Your task to perform on an android device: Open Android settings Image 0: 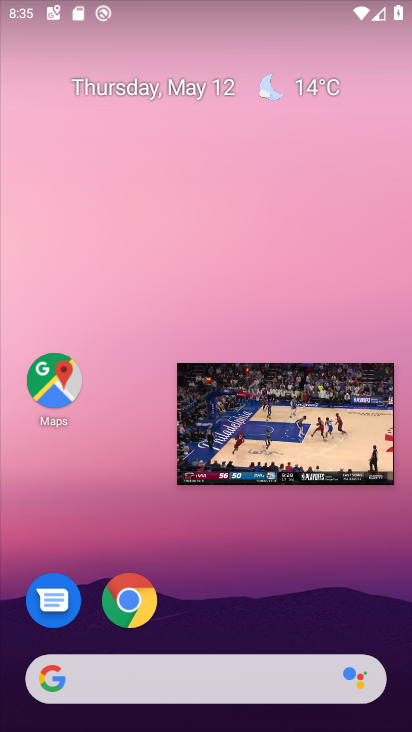
Step 0: click (370, 383)
Your task to perform on an android device: Open Android settings Image 1: 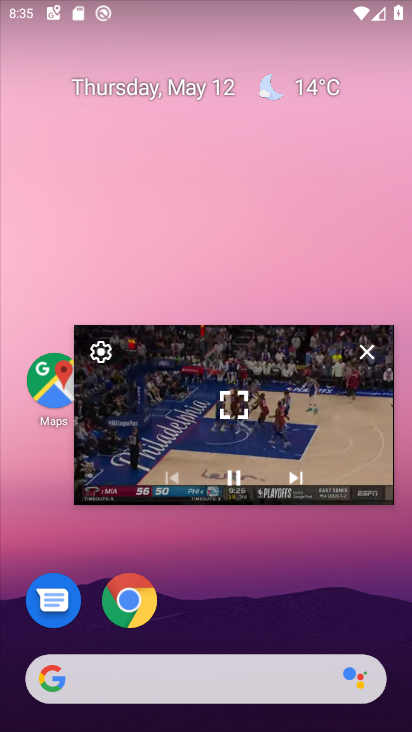
Step 1: click (349, 415)
Your task to perform on an android device: Open Android settings Image 2: 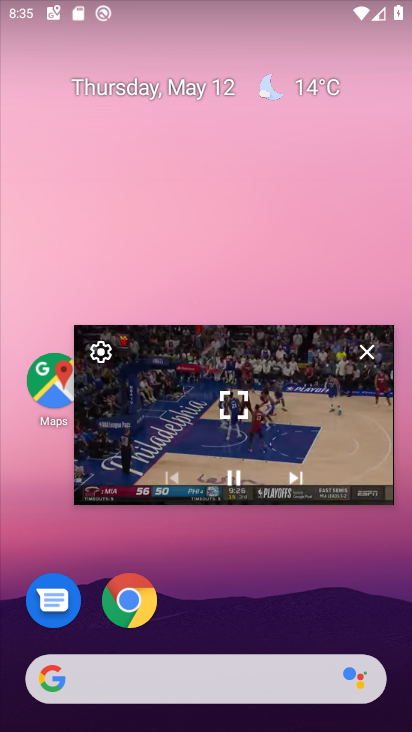
Step 2: click (329, 423)
Your task to perform on an android device: Open Android settings Image 3: 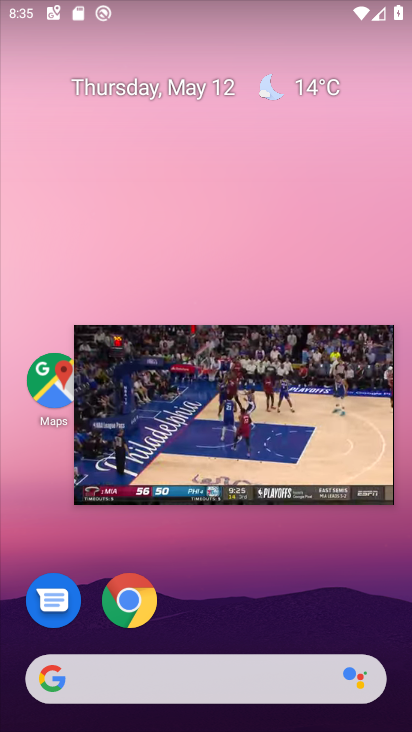
Step 3: click (324, 424)
Your task to perform on an android device: Open Android settings Image 4: 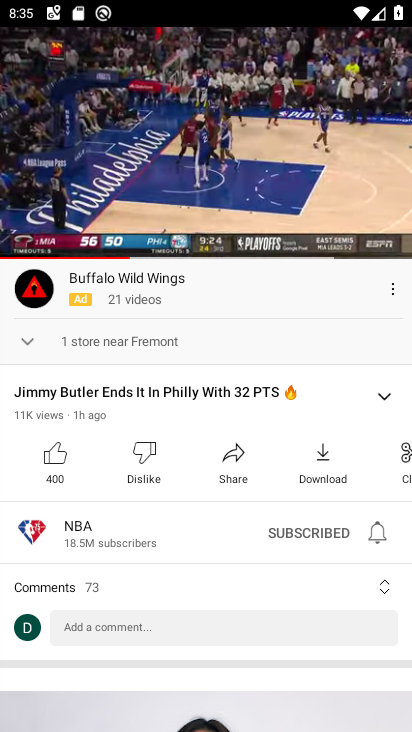
Step 4: click (308, 418)
Your task to perform on an android device: Open Android settings Image 5: 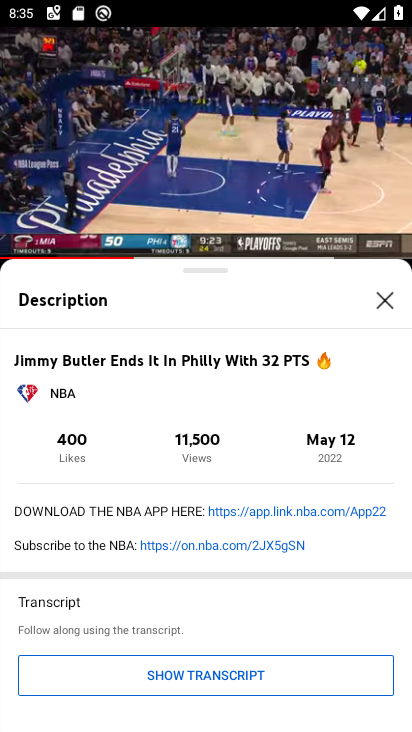
Step 5: click (372, 355)
Your task to perform on an android device: Open Android settings Image 6: 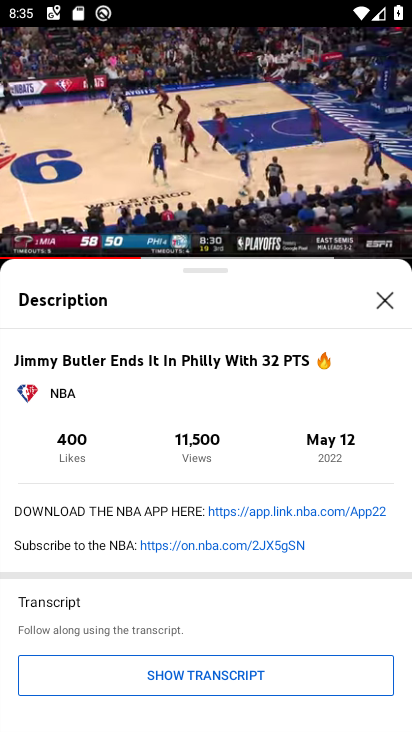
Step 6: press back button
Your task to perform on an android device: Open Android settings Image 7: 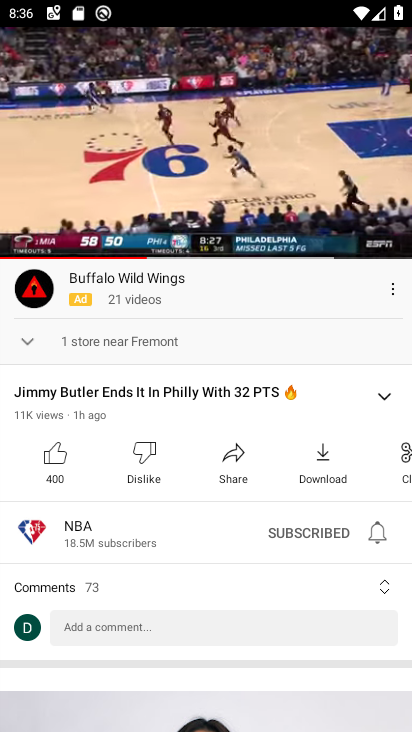
Step 7: press back button
Your task to perform on an android device: Open Android settings Image 8: 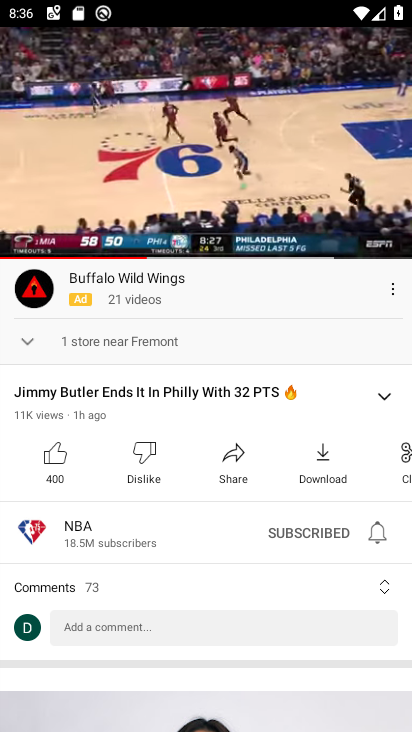
Step 8: press home button
Your task to perform on an android device: Open Android settings Image 9: 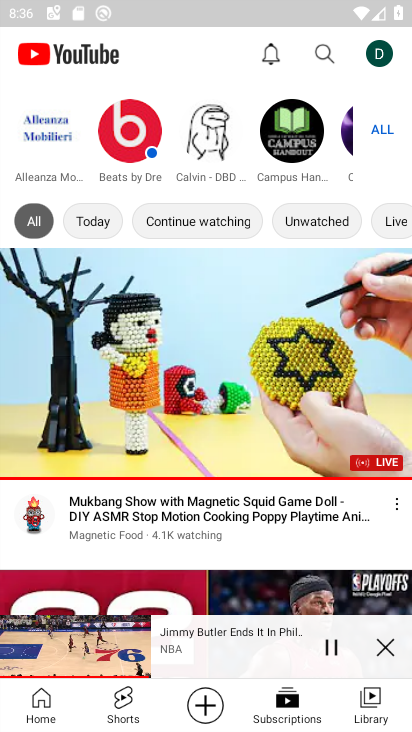
Step 9: press home button
Your task to perform on an android device: Open Android settings Image 10: 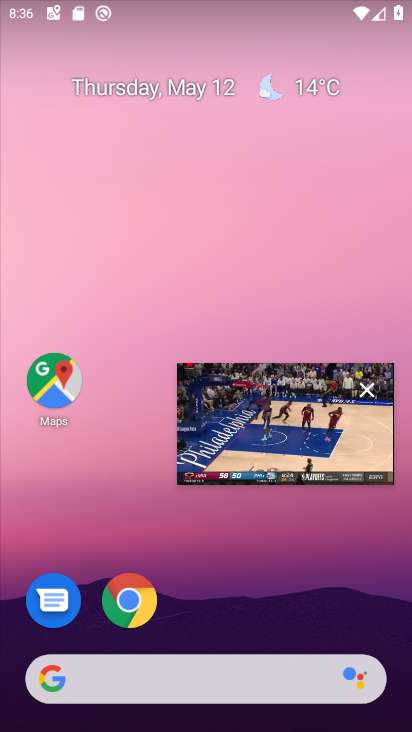
Step 10: press home button
Your task to perform on an android device: Open Android settings Image 11: 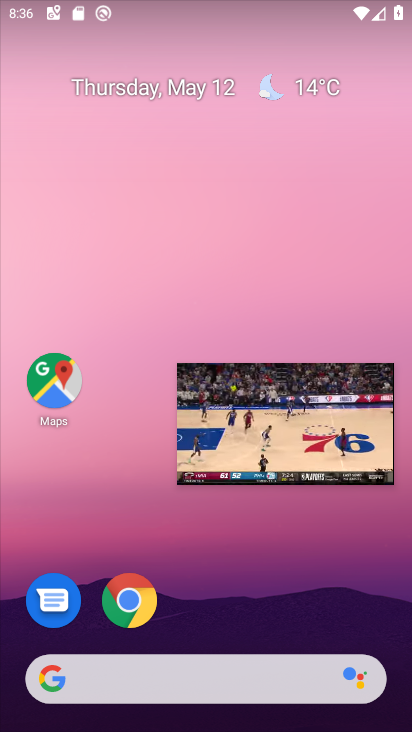
Step 11: press home button
Your task to perform on an android device: Open Android settings Image 12: 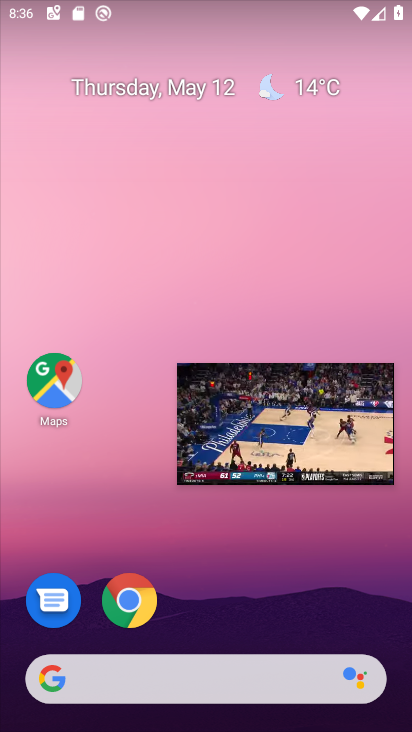
Step 12: click (370, 381)
Your task to perform on an android device: Open Android settings Image 13: 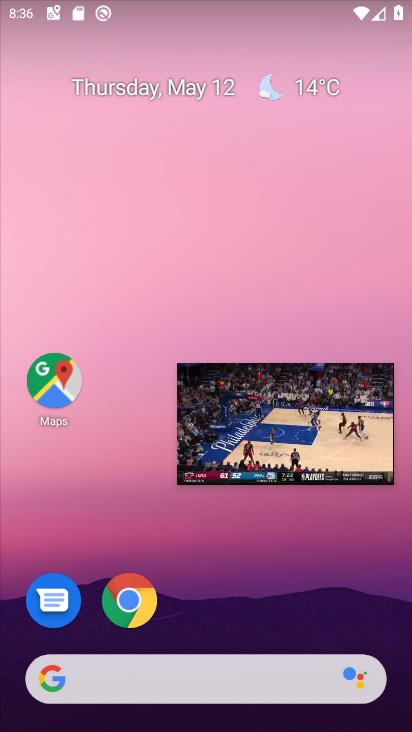
Step 13: click (365, 388)
Your task to perform on an android device: Open Android settings Image 14: 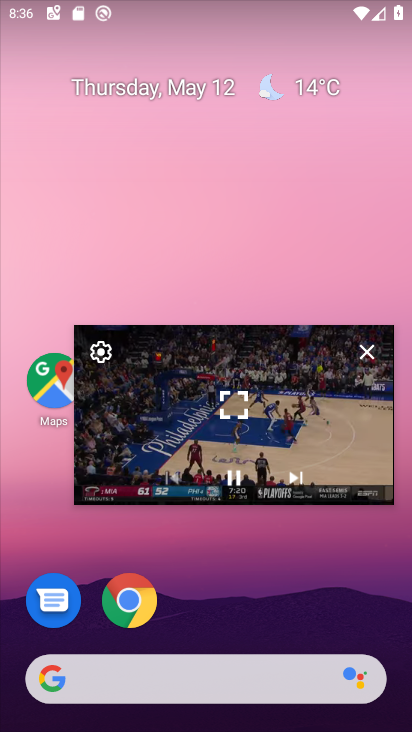
Step 14: click (353, 391)
Your task to perform on an android device: Open Android settings Image 15: 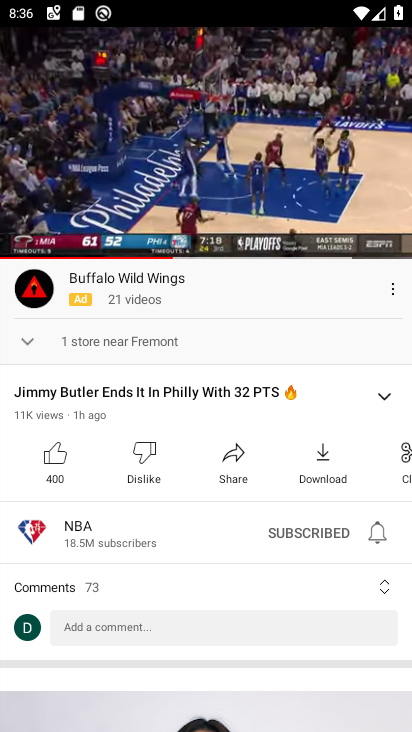
Step 15: click (363, 349)
Your task to perform on an android device: Open Android settings Image 16: 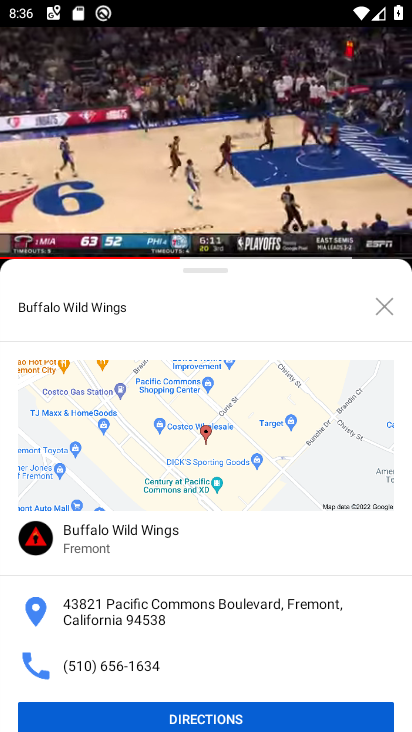
Step 16: click (381, 305)
Your task to perform on an android device: Open Android settings Image 17: 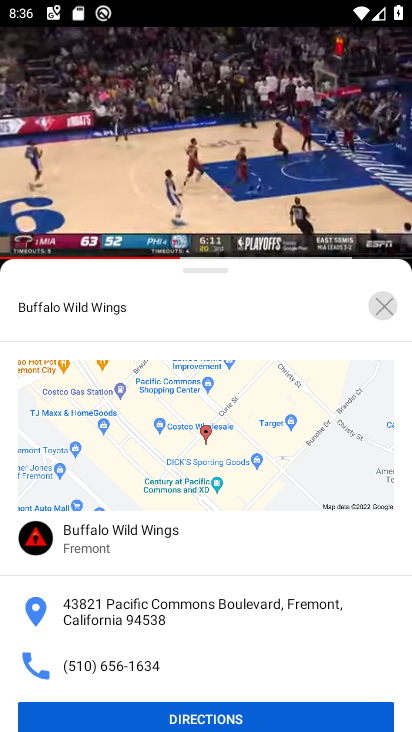
Step 17: click (383, 303)
Your task to perform on an android device: Open Android settings Image 18: 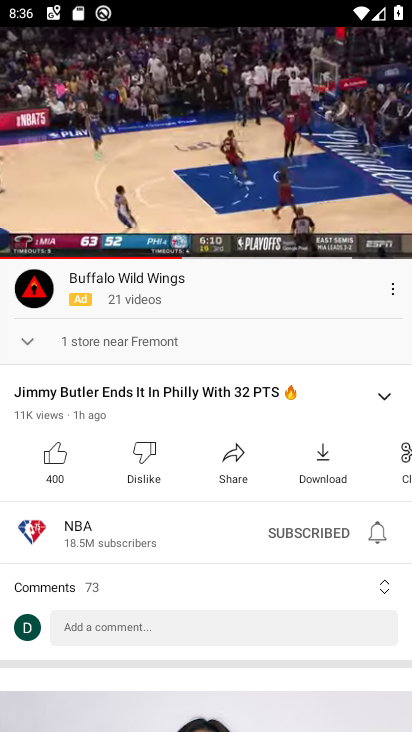
Step 18: click (383, 304)
Your task to perform on an android device: Open Android settings Image 19: 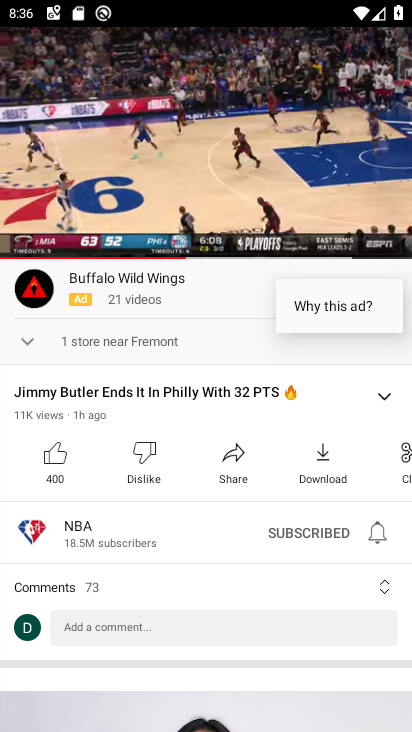
Step 19: click (331, 300)
Your task to perform on an android device: Open Android settings Image 20: 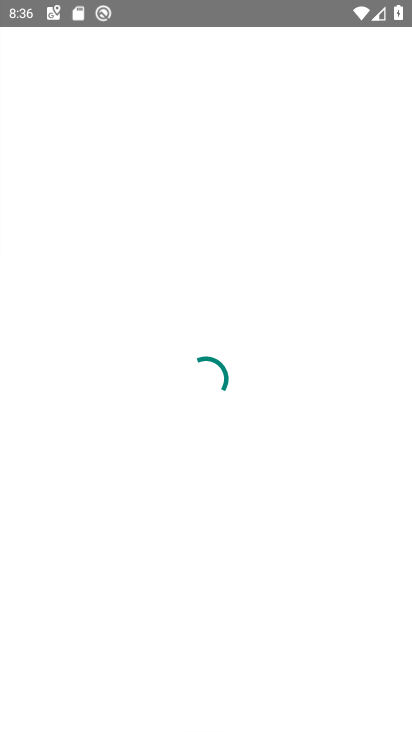
Step 20: press home button
Your task to perform on an android device: Open Android settings Image 21: 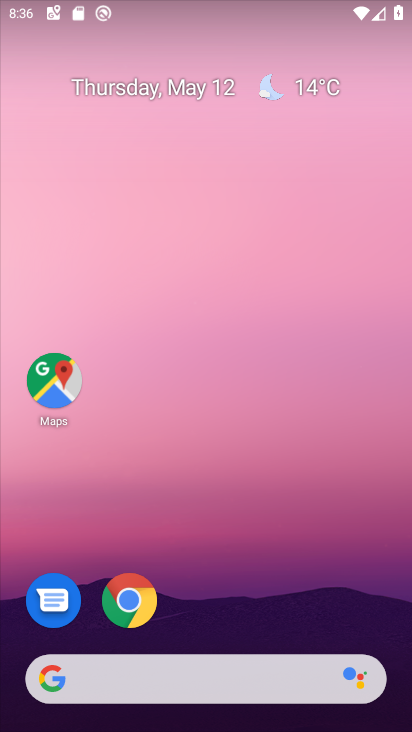
Step 21: drag from (270, 543) to (206, 90)
Your task to perform on an android device: Open Android settings Image 22: 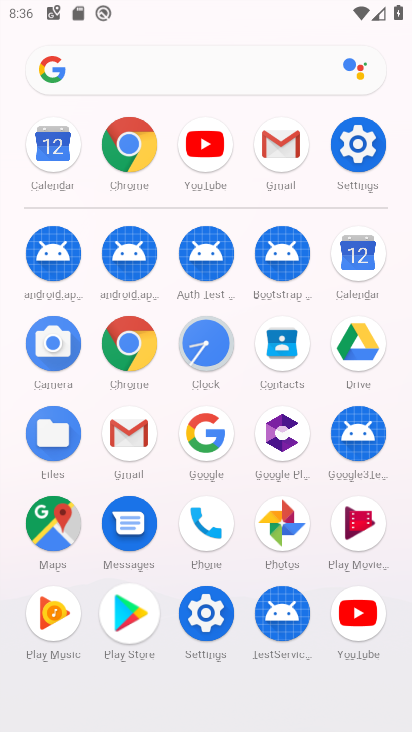
Step 22: click (354, 156)
Your task to perform on an android device: Open Android settings Image 23: 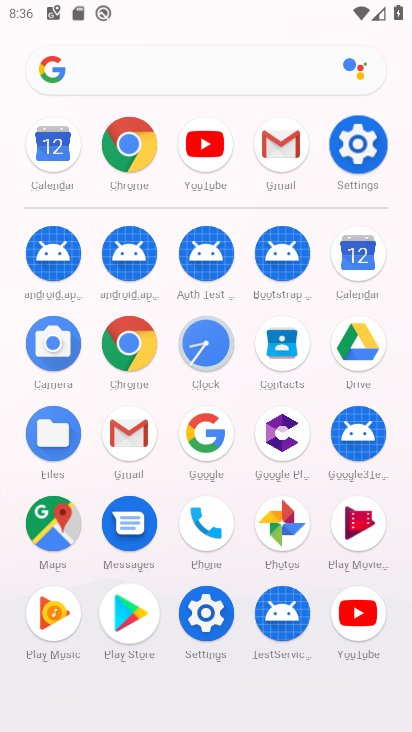
Step 23: click (354, 156)
Your task to perform on an android device: Open Android settings Image 24: 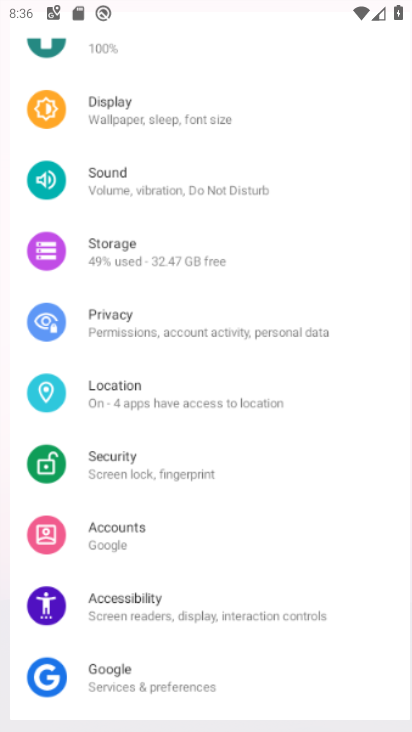
Step 24: click (354, 156)
Your task to perform on an android device: Open Android settings Image 25: 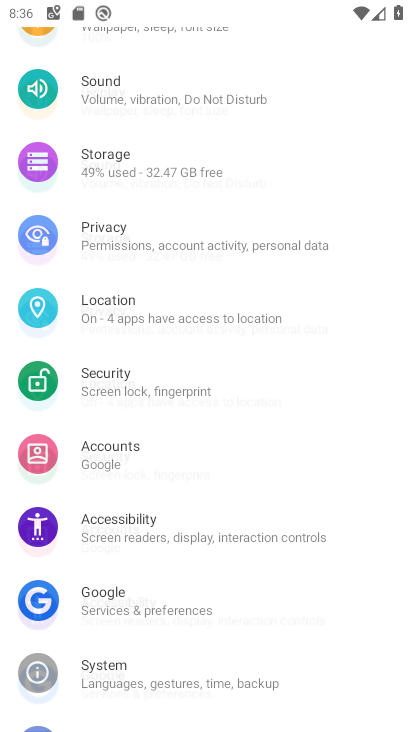
Step 25: click (354, 156)
Your task to perform on an android device: Open Android settings Image 26: 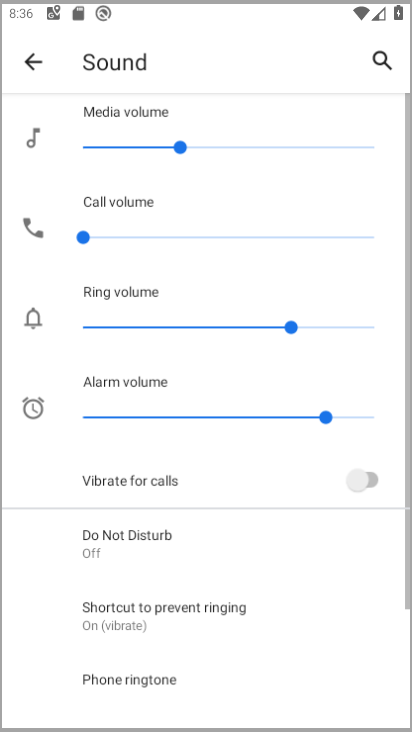
Step 26: drag from (203, 421) to (210, 217)
Your task to perform on an android device: Open Android settings Image 27: 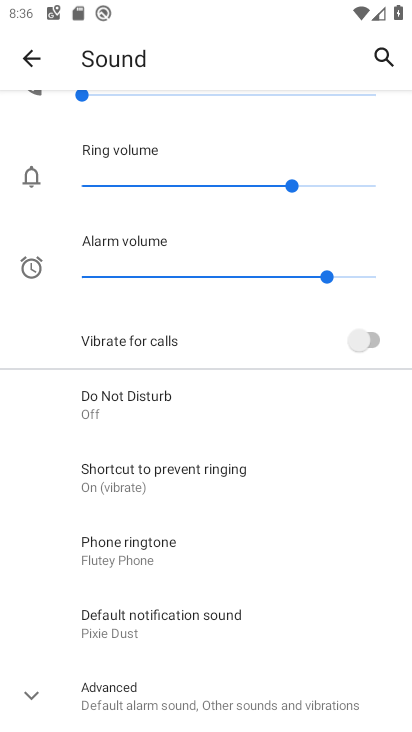
Step 27: click (31, 48)
Your task to perform on an android device: Open Android settings Image 28: 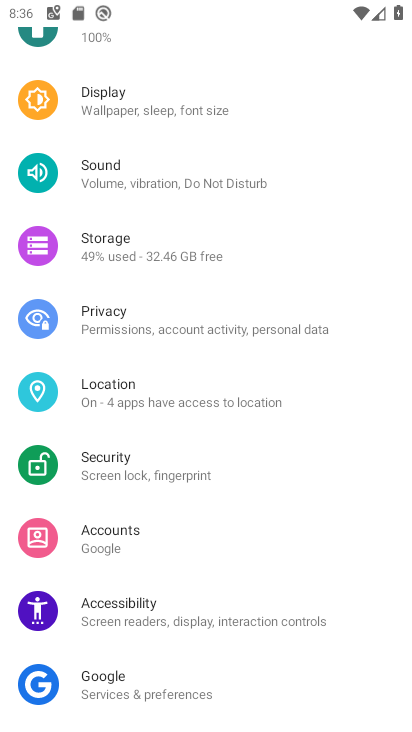
Step 28: drag from (206, 538) to (237, 175)
Your task to perform on an android device: Open Android settings Image 29: 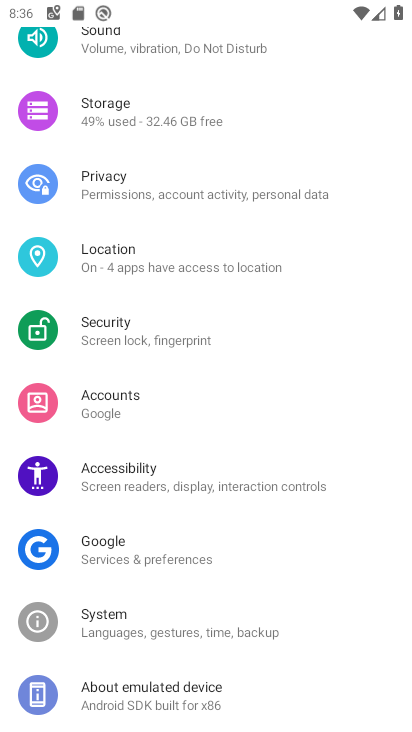
Step 29: click (148, 694)
Your task to perform on an android device: Open Android settings Image 30: 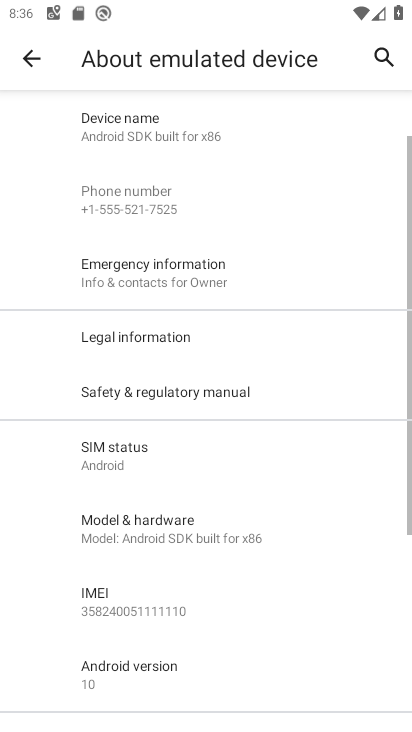
Step 30: click (162, 115)
Your task to perform on an android device: Open Android settings Image 31: 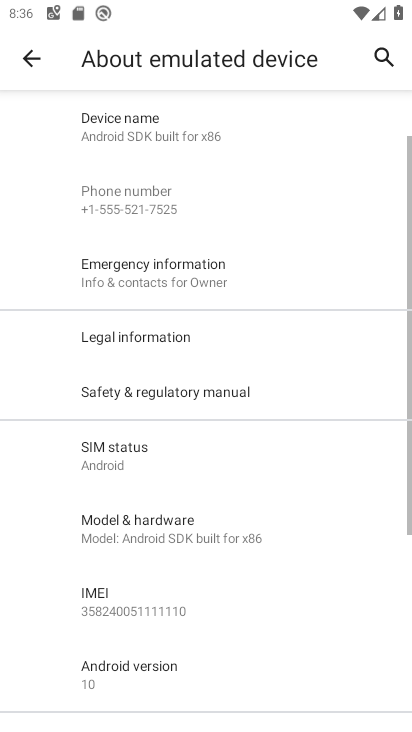
Step 31: drag from (173, 219) to (179, 115)
Your task to perform on an android device: Open Android settings Image 32: 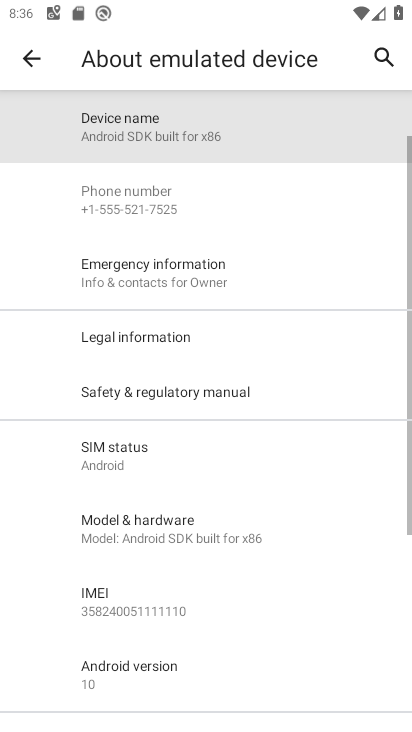
Step 32: drag from (180, 443) to (180, 146)
Your task to perform on an android device: Open Android settings Image 33: 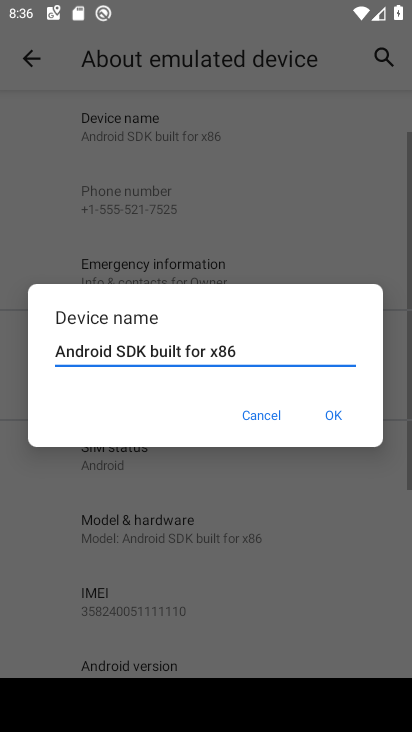
Step 33: drag from (146, 531) to (170, 127)
Your task to perform on an android device: Open Android settings Image 34: 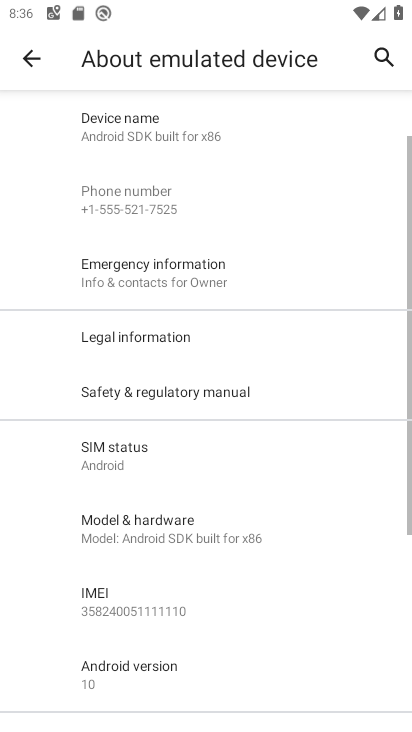
Step 34: click (264, 417)
Your task to perform on an android device: Open Android settings Image 35: 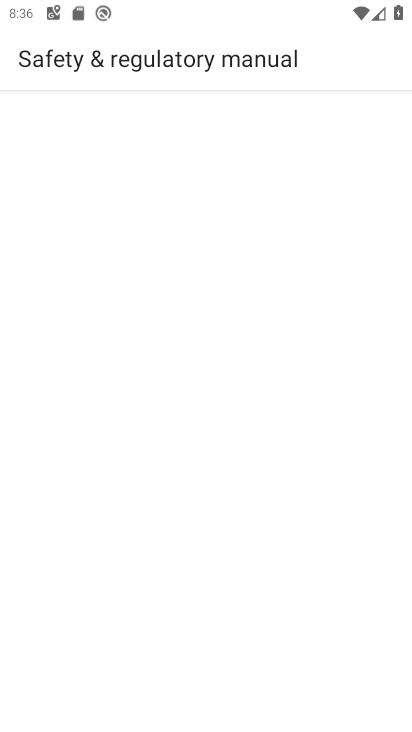
Step 35: task complete